Your task to perform on an android device: visit the assistant section in the google photos Image 0: 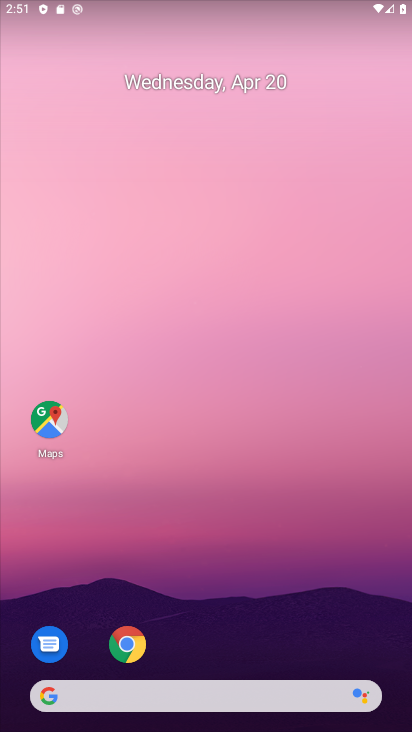
Step 0: drag from (189, 649) to (253, 30)
Your task to perform on an android device: visit the assistant section in the google photos Image 1: 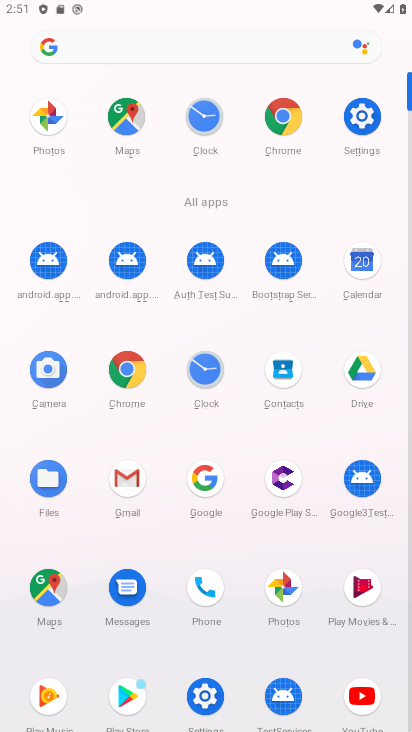
Step 1: click (55, 125)
Your task to perform on an android device: visit the assistant section in the google photos Image 2: 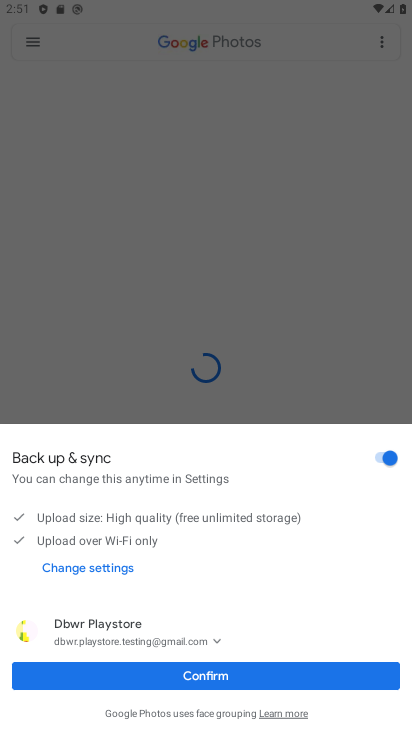
Step 2: click (221, 676)
Your task to perform on an android device: visit the assistant section in the google photos Image 3: 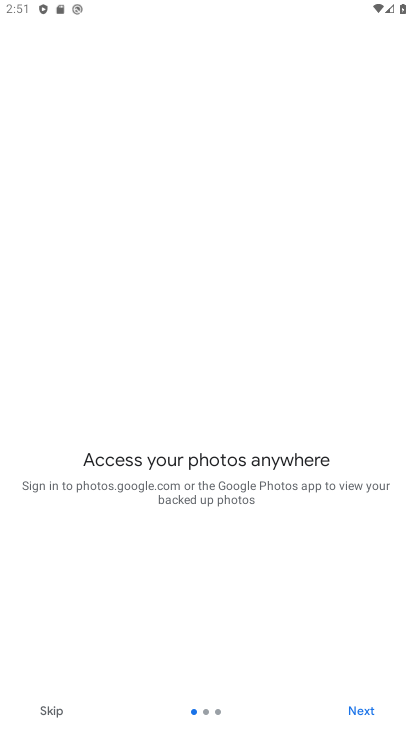
Step 3: click (357, 718)
Your task to perform on an android device: visit the assistant section in the google photos Image 4: 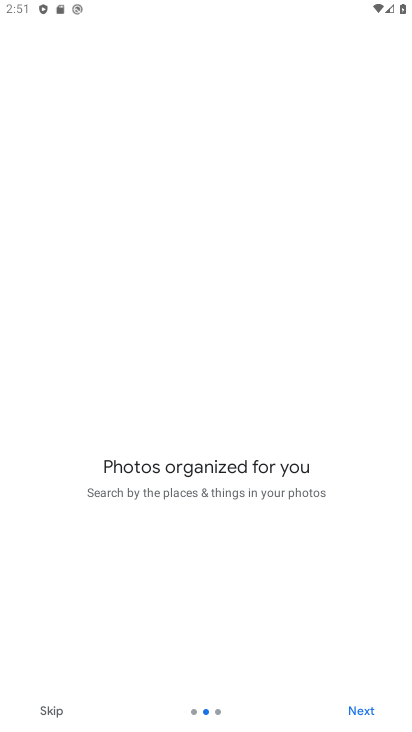
Step 4: click (357, 718)
Your task to perform on an android device: visit the assistant section in the google photos Image 5: 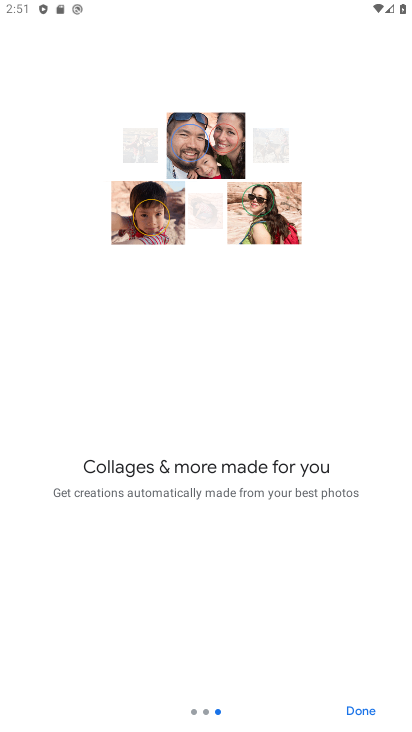
Step 5: click (357, 718)
Your task to perform on an android device: visit the assistant section in the google photos Image 6: 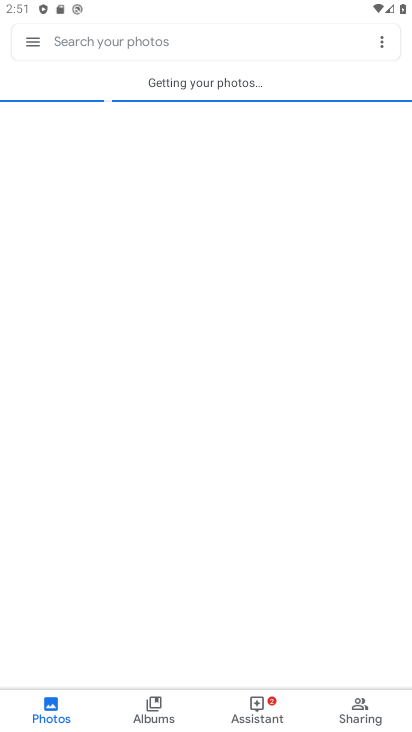
Step 6: click (253, 711)
Your task to perform on an android device: visit the assistant section in the google photos Image 7: 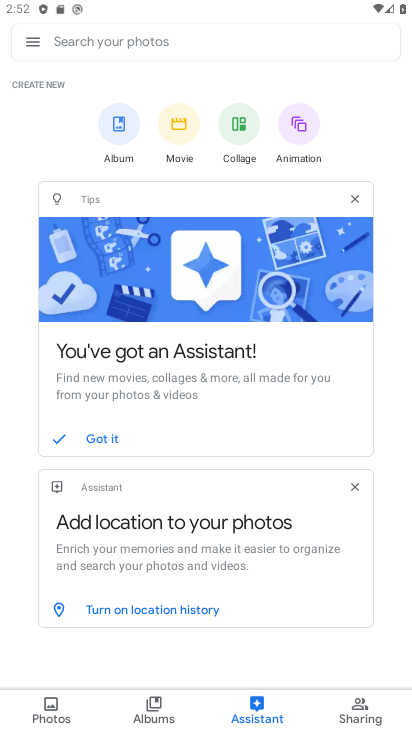
Step 7: task complete